Your task to perform on an android device: see tabs open on other devices in the chrome app Image 0: 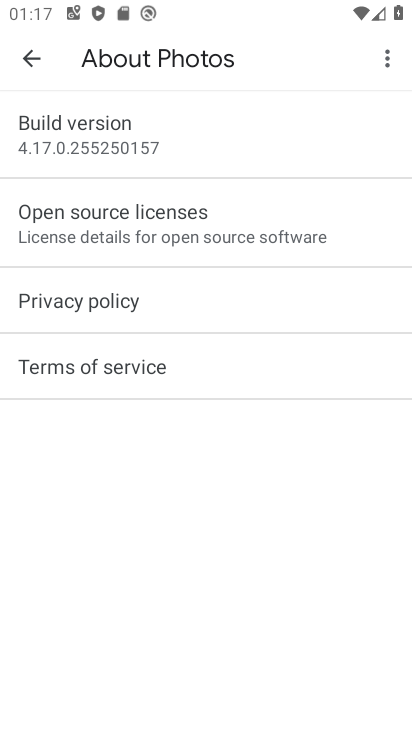
Step 0: press home button
Your task to perform on an android device: see tabs open on other devices in the chrome app Image 1: 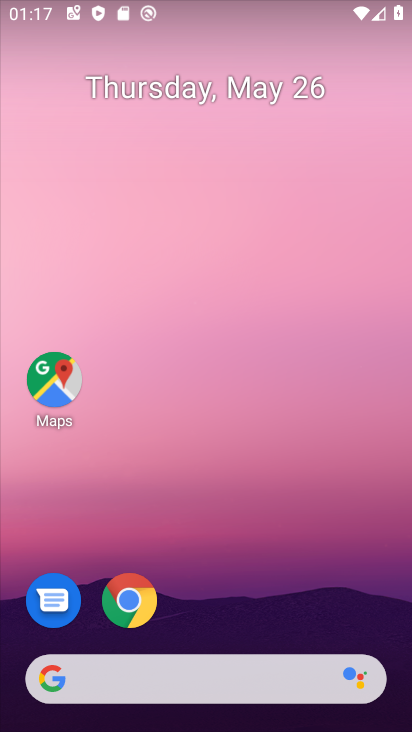
Step 1: click (120, 609)
Your task to perform on an android device: see tabs open on other devices in the chrome app Image 2: 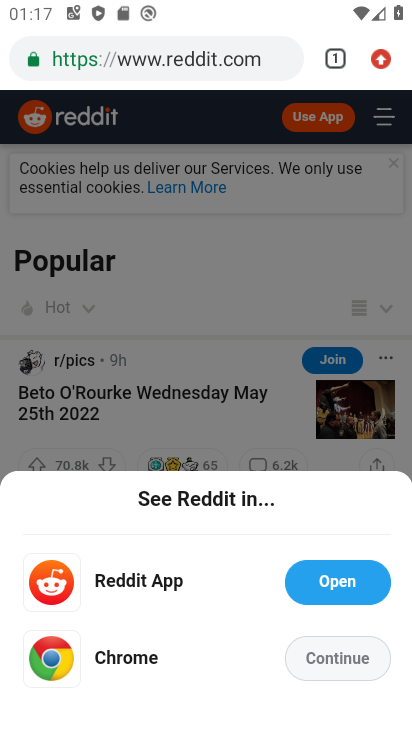
Step 2: click (342, 62)
Your task to perform on an android device: see tabs open on other devices in the chrome app Image 3: 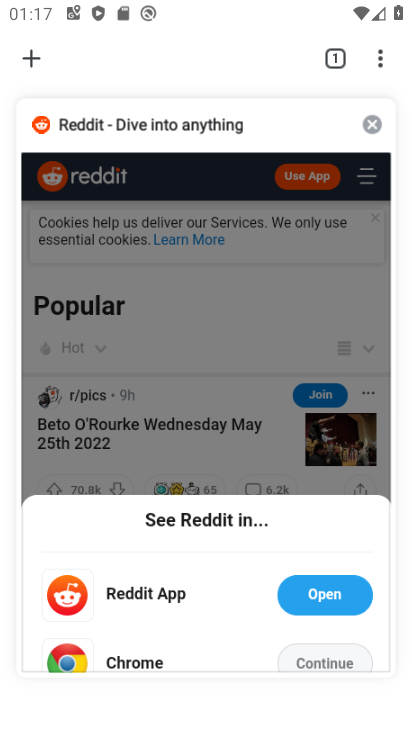
Step 3: click (30, 55)
Your task to perform on an android device: see tabs open on other devices in the chrome app Image 4: 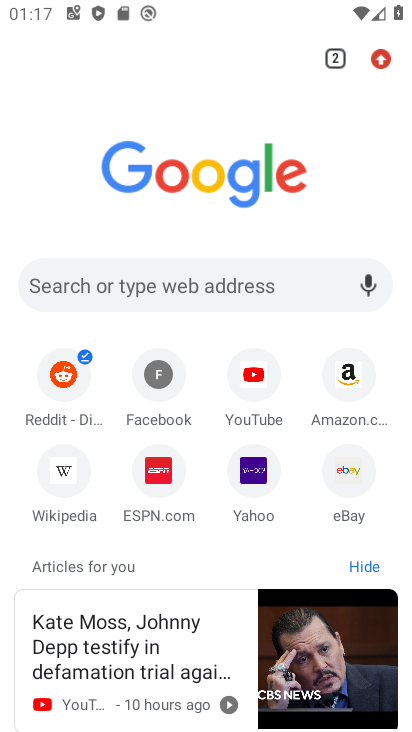
Step 4: click (369, 387)
Your task to perform on an android device: see tabs open on other devices in the chrome app Image 5: 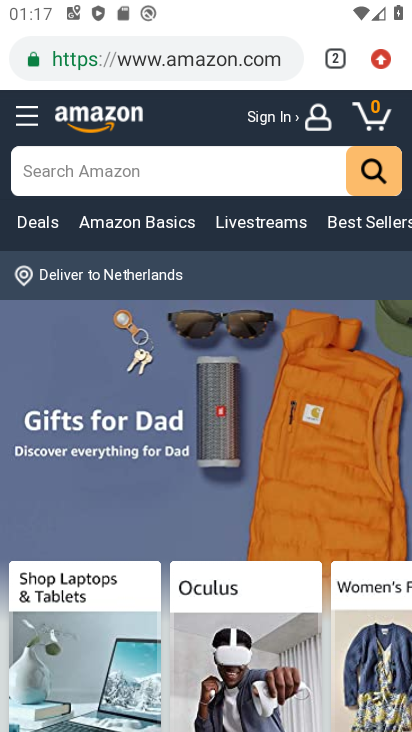
Step 5: task complete